Your task to perform on an android device: Open Google Image 0: 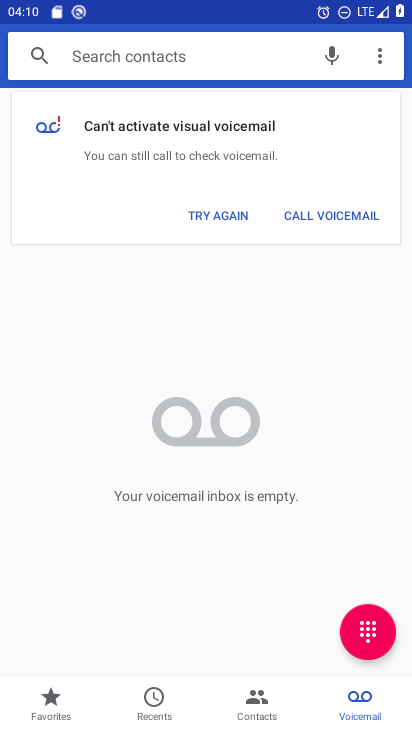
Step 0: press home button
Your task to perform on an android device: Open Google Image 1: 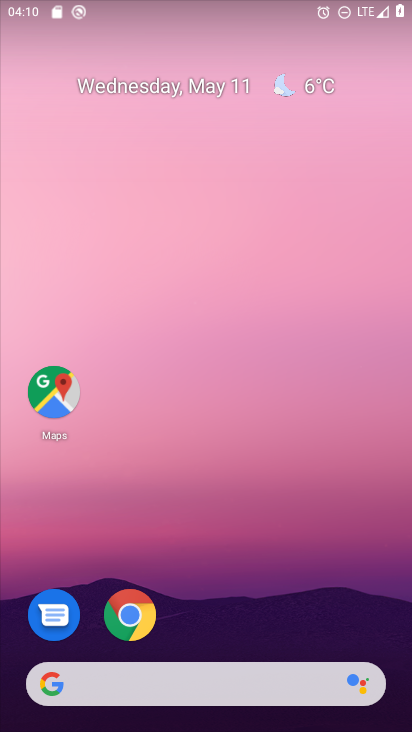
Step 1: drag from (274, 587) to (242, 125)
Your task to perform on an android device: Open Google Image 2: 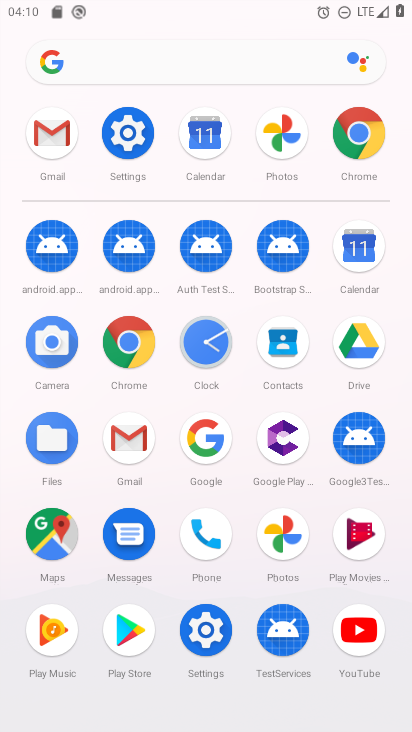
Step 2: click (194, 431)
Your task to perform on an android device: Open Google Image 3: 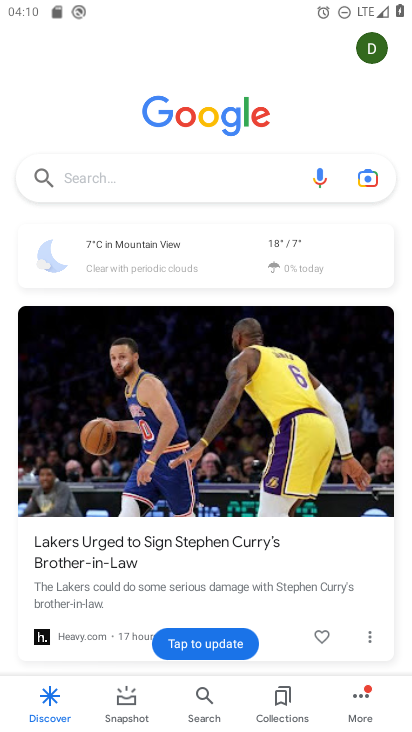
Step 3: task complete